Your task to perform on an android device: Search for pizza restaurants on Maps Image 0: 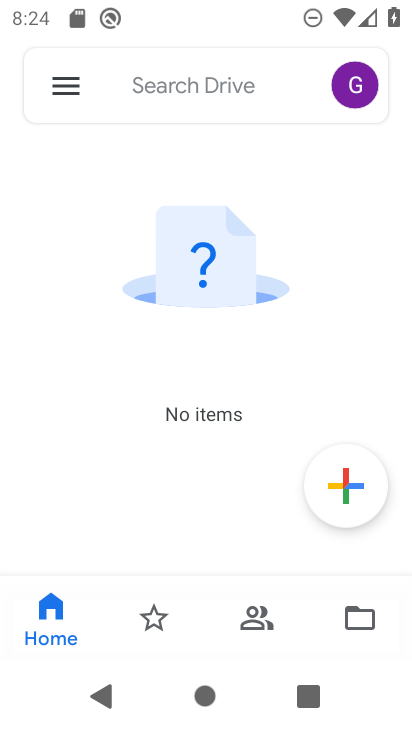
Step 0: press home button
Your task to perform on an android device: Search for pizza restaurants on Maps Image 1: 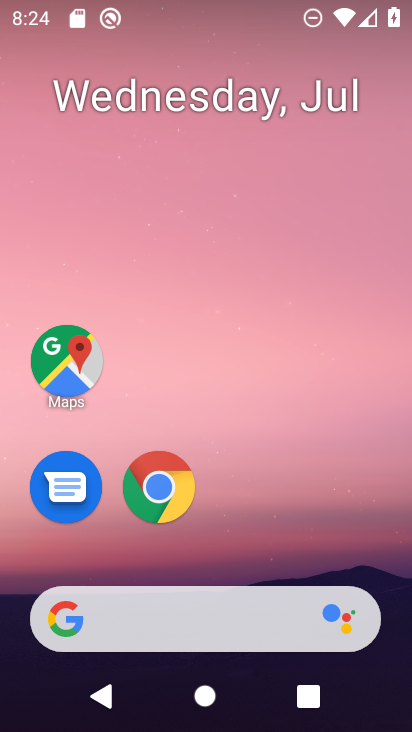
Step 1: drag from (351, 537) to (332, 106)
Your task to perform on an android device: Search for pizza restaurants on Maps Image 2: 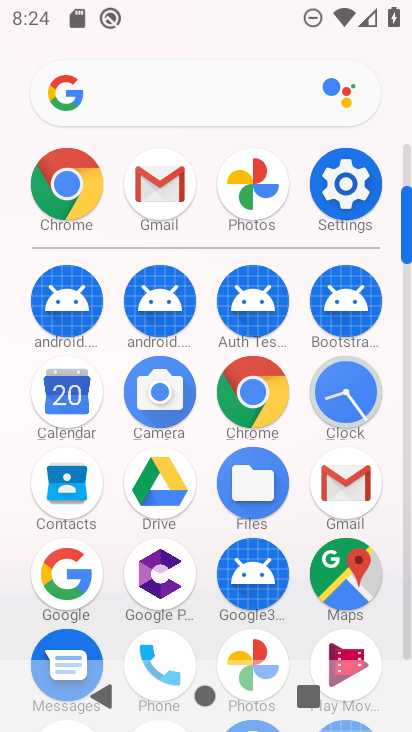
Step 2: click (338, 565)
Your task to perform on an android device: Search for pizza restaurants on Maps Image 3: 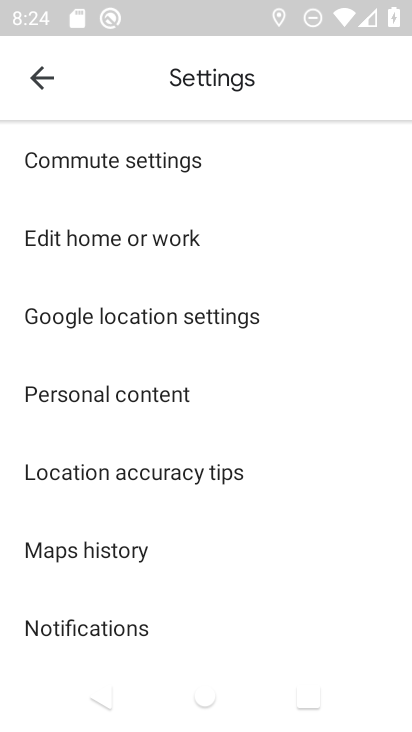
Step 3: press back button
Your task to perform on an android device: Search for pizza restaurants on Maps Image 4: 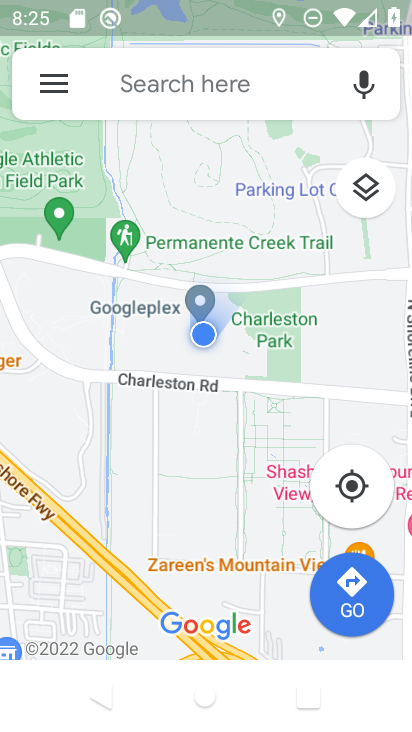
Step 4: click (172, 86)
Your task to perform on an android device: Search for pizza restaurants on Maps Image 5: 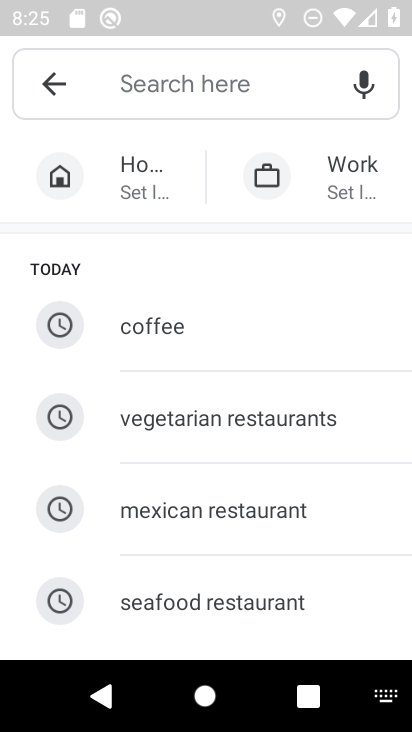
Step 5: type "pizza restaujrants"
Your task to perform on an android device: Search for pizza restaurants on Maps Image 6: 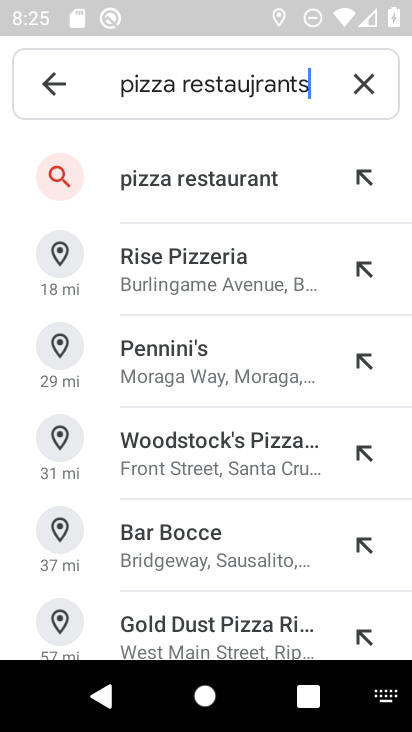
Step 6: click (248, 174)
Your task to perform on an android device: Search for pizza restaurants on Maps Image 7: 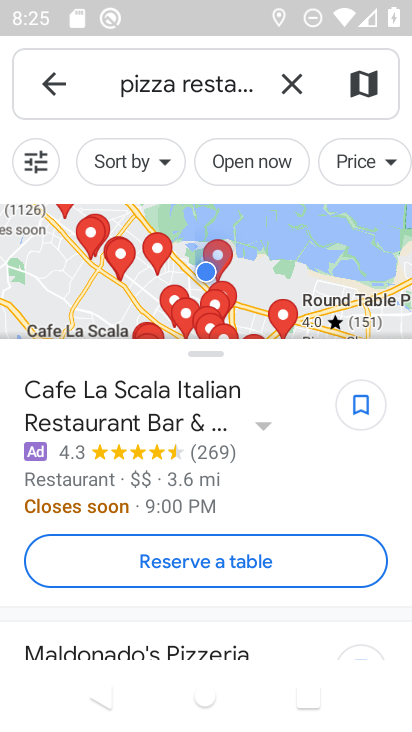
Step 7: task complete